Your task to perform on an android device: turn off picture-in-picture Image 0: 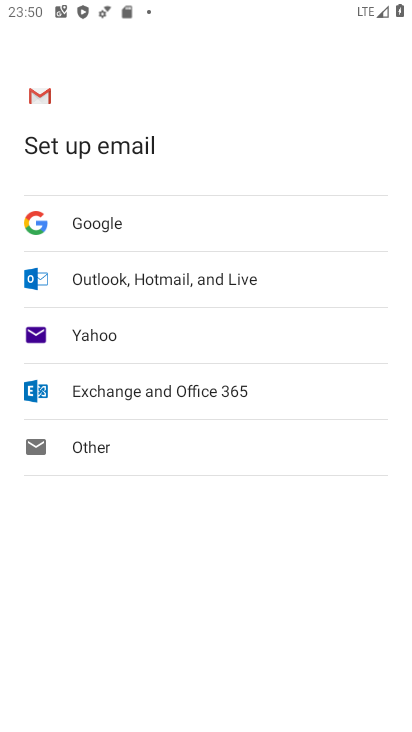
Step 0: press home button
Your task to perform on an android device: turn off picture-in-picture Image 1: 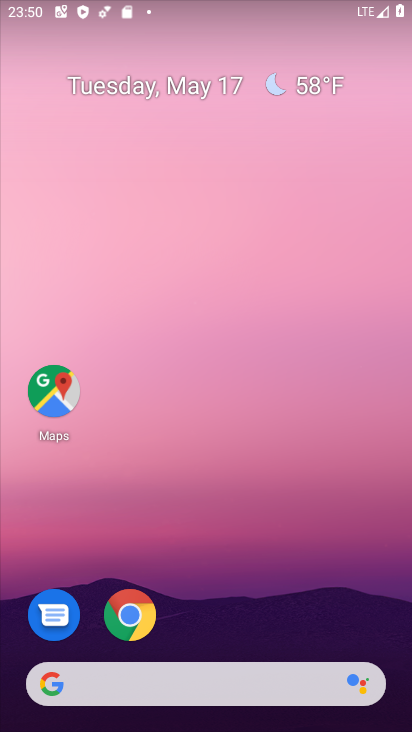
Step 1: click (124, 600)
Your task to perform on an android device: turn off picture-in-picture Image 2: 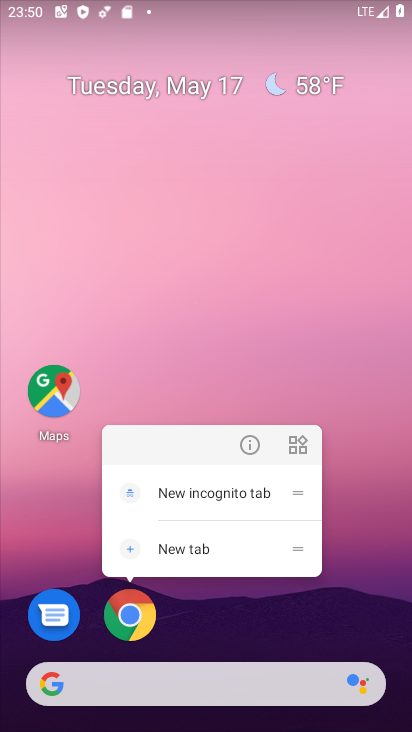
Step 2: click (247, 444)
Your task to perform on an android device: turn off picture-in-picture Image 3: 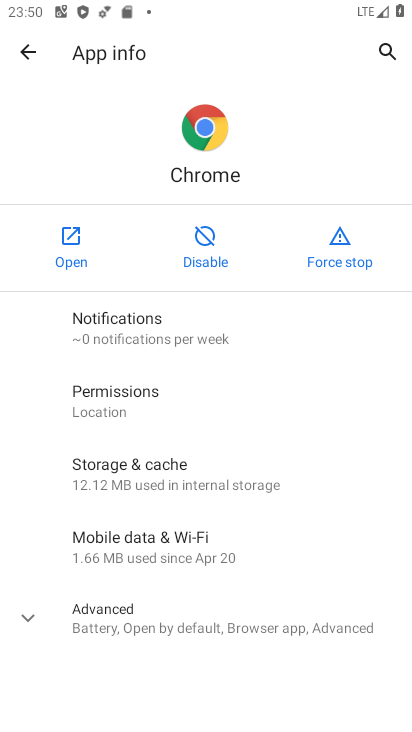
Step 3: click (191, 625)
Your task to perform on an android device: turn off picture-in-picture Image 4: 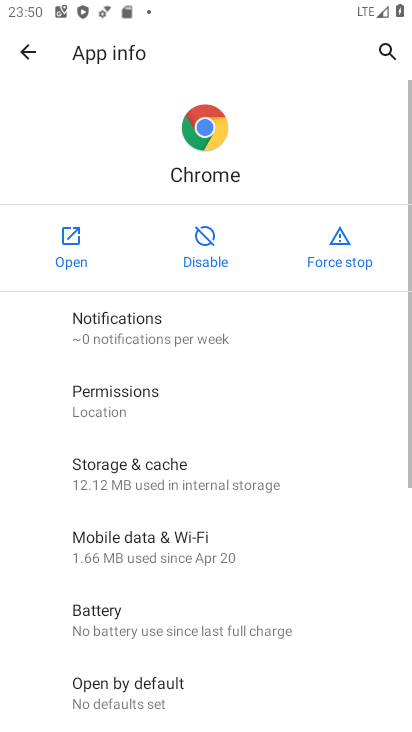
Step 4: drag from (191, 625) to (238, 311)
Your task to perform on an android device: turn off picture-in-picture Image 5: 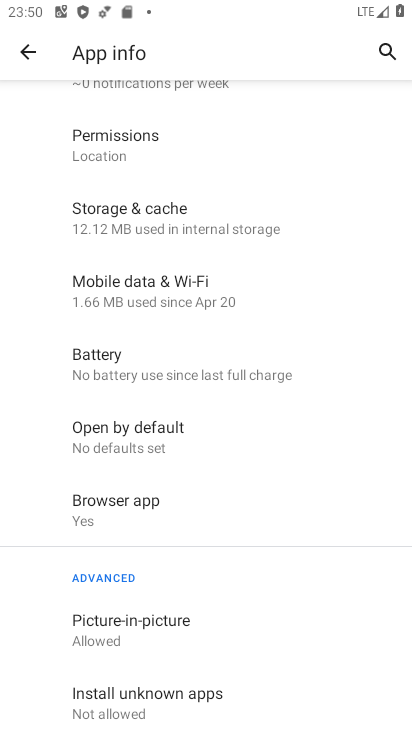
Step 5: click (131, 631)
Your task to perform on an android device: turn off picture-in-picture Image 6: 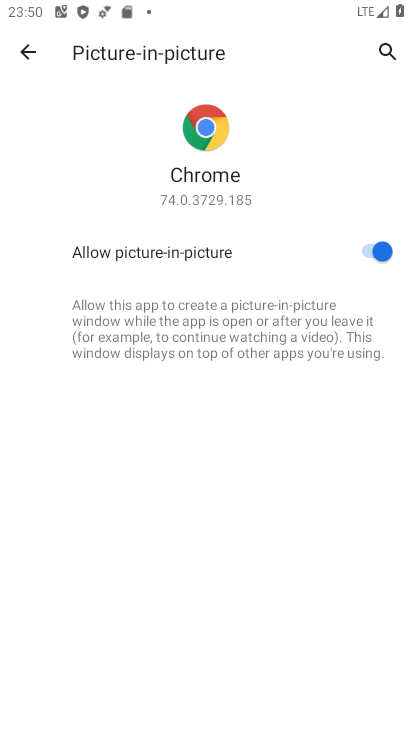
Step 6: click (368, 252)
Your task to perform on an android device: turn off picture-in-picture Image 7: 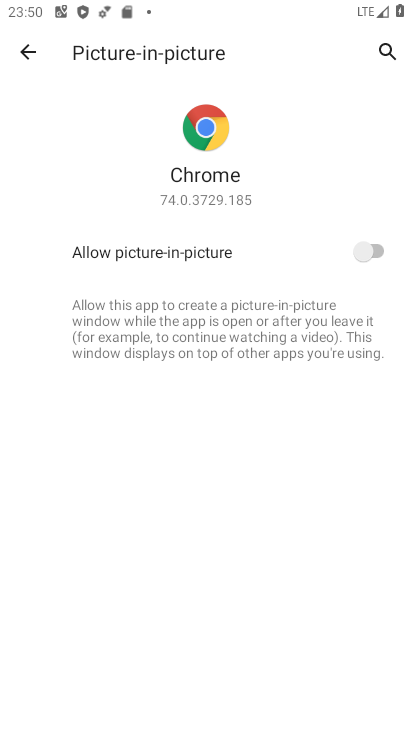
Step 7: task complete